Your task to perform on an android device: change the clock style Image 0: 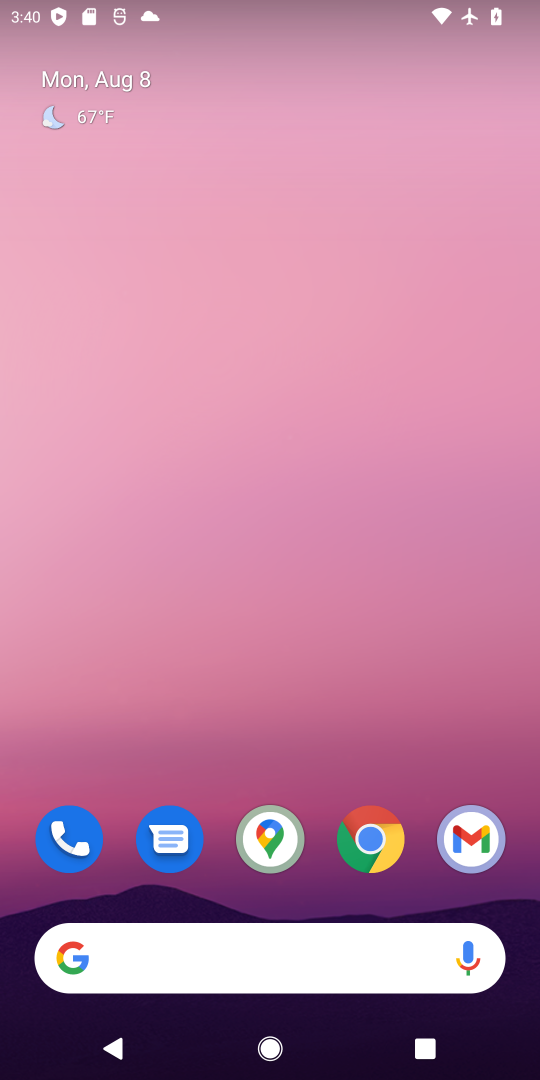
Step 0: press home button
Your task to perform on an android device: change the clock style Image 1: 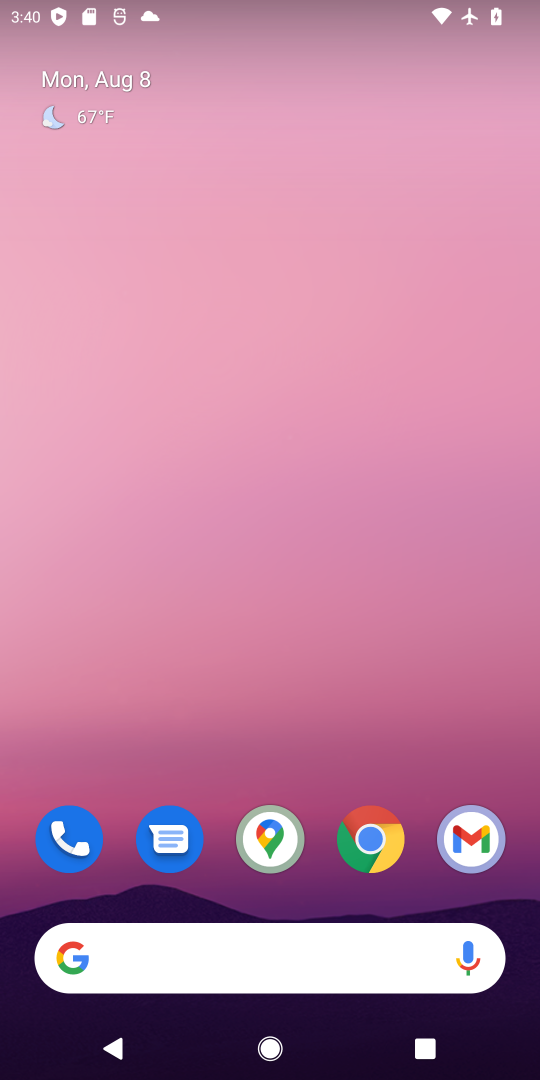
Step 1: drag from (434, 764) to (450, 209)
Your task to perform on an android device: change the clock style Image 2: 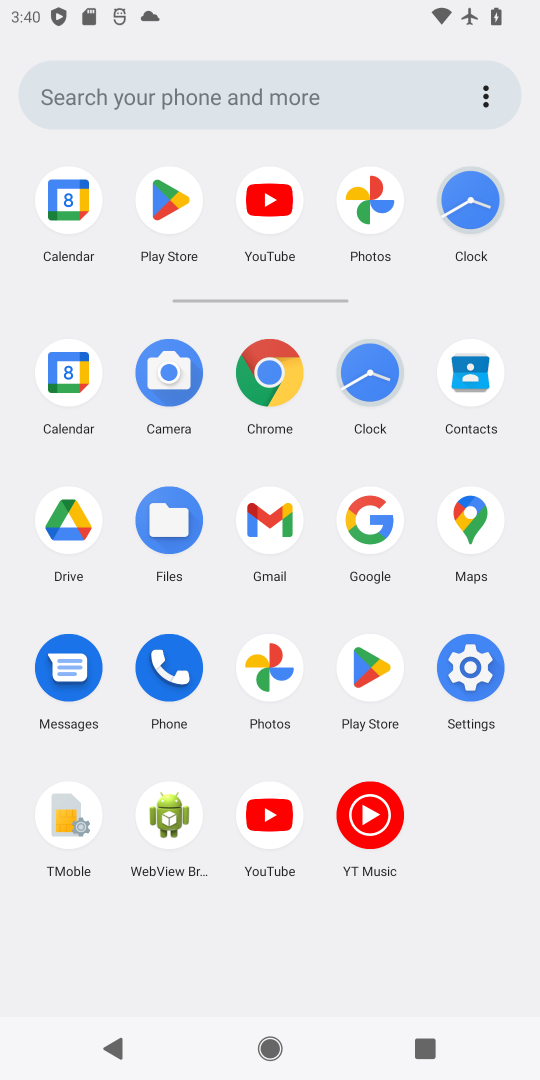
Step 2: click (358, 381)
Your task to perform on an android device: change the clock style Image 3: 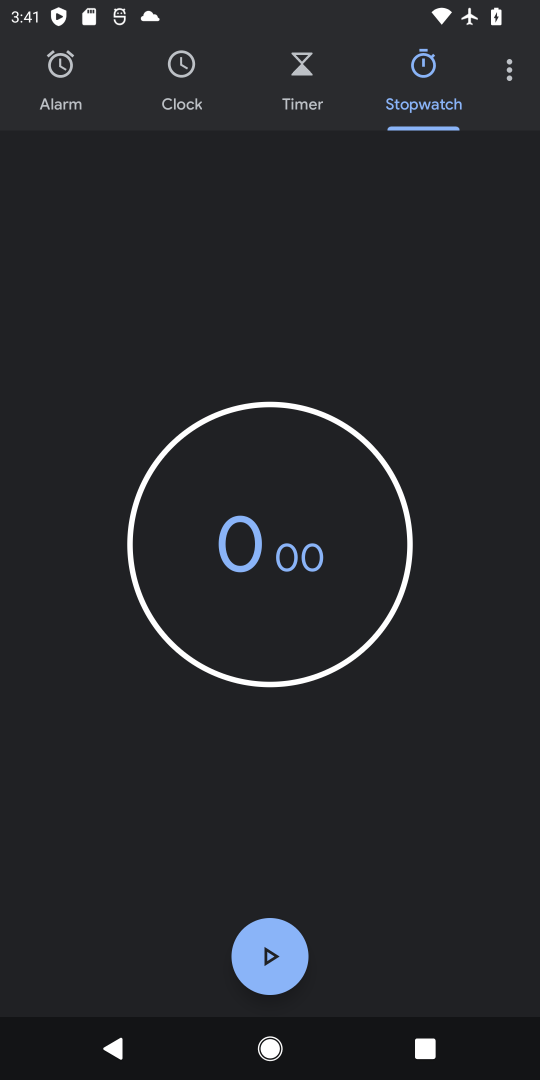
Step 3: click (510, 77)
Your task to perform on an android device: change the clock style Image 4: 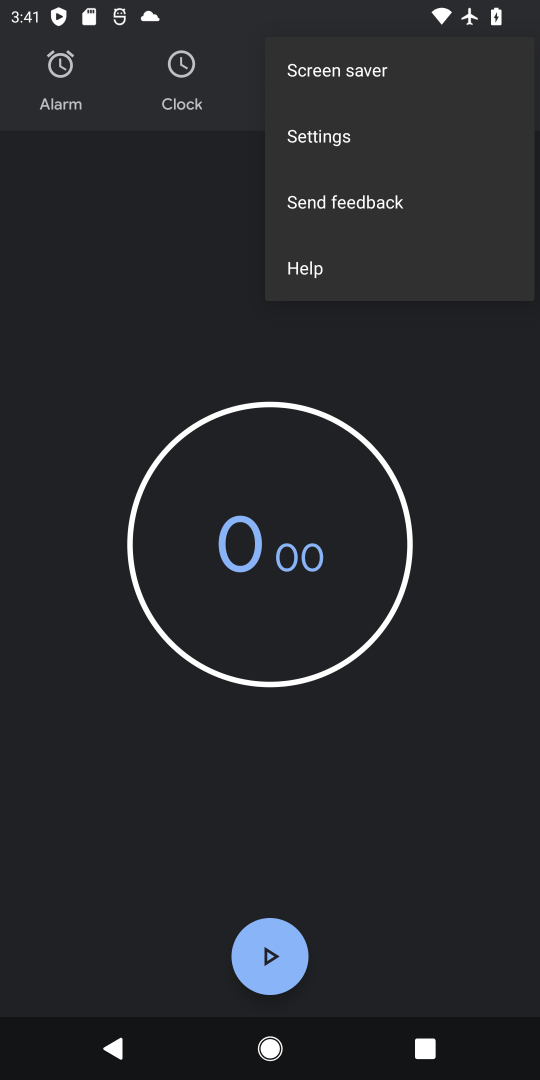
Step 4: click (345, 143)
Your task to perform on an android device: change the clock style Image 5: 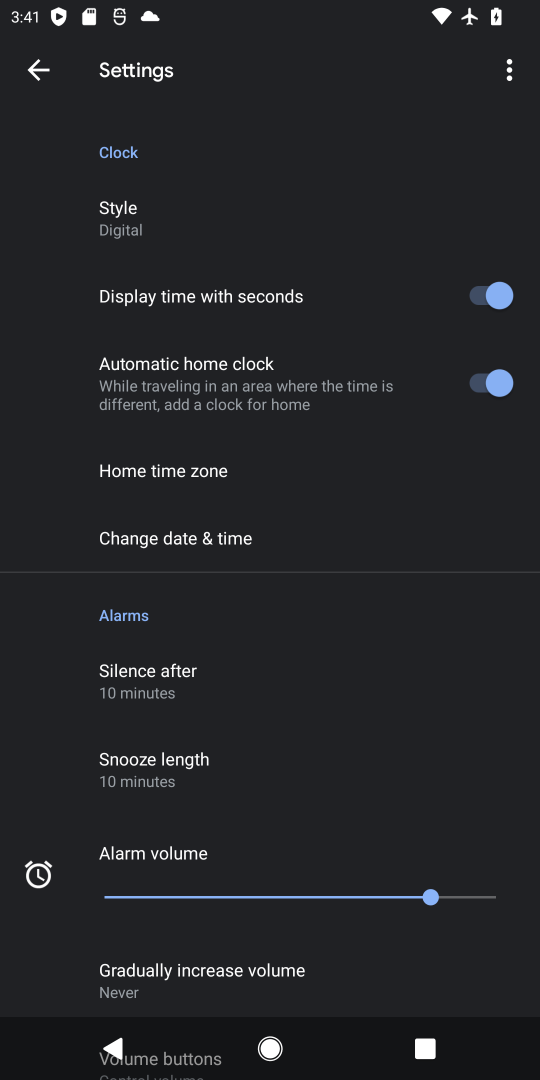
Step 5: drag from (394, 540) to (406, 348)
Your task to perform on an android device: change the clock style Image 6: 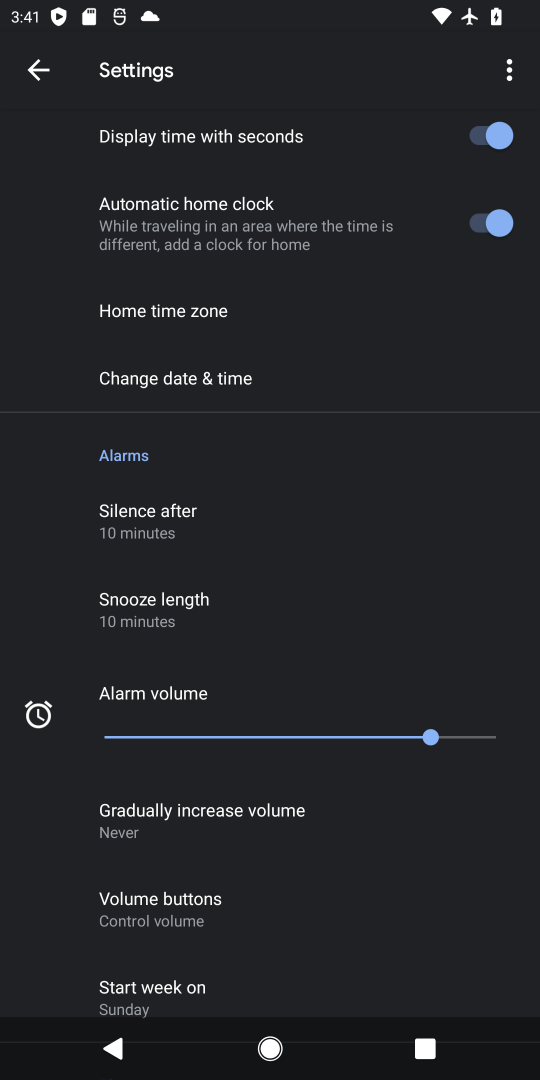
Step 6: drag from (409, 579) to (413, 355)
Your task to perform on an android device: change the clock style Image 7: 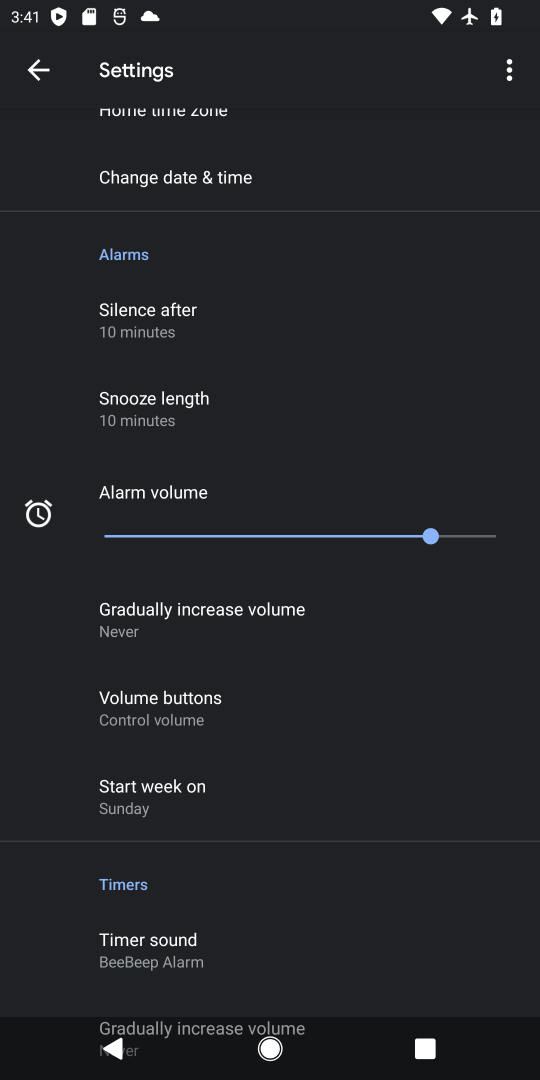
Step 7: drag from (432, 719) to (458, 454)
Your task to perform on an android device: change the clock style Image 8: 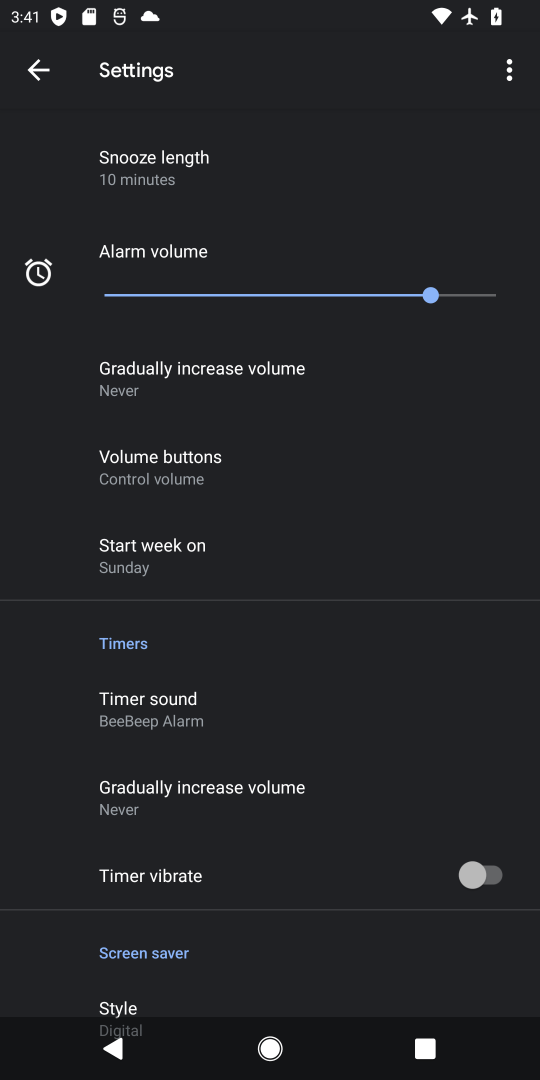
Step 8: drag from (439, 632) to (454, 457)
Your task to perform on an android device: change the clock style Image 9: 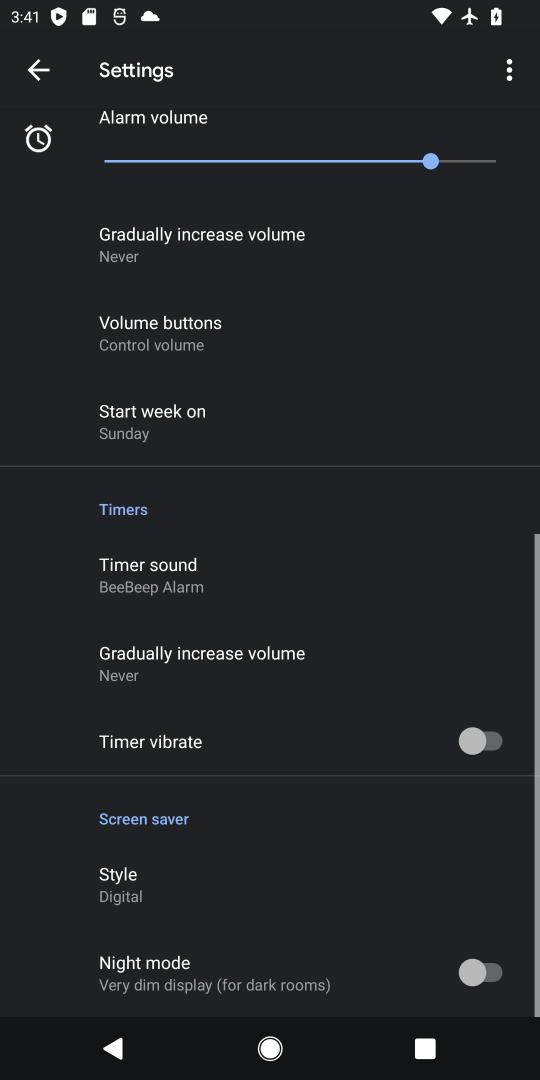
Step 9: drag from (441, 363) to (453, 572)
Your task to perform on an android device: change the clock style Image 10: 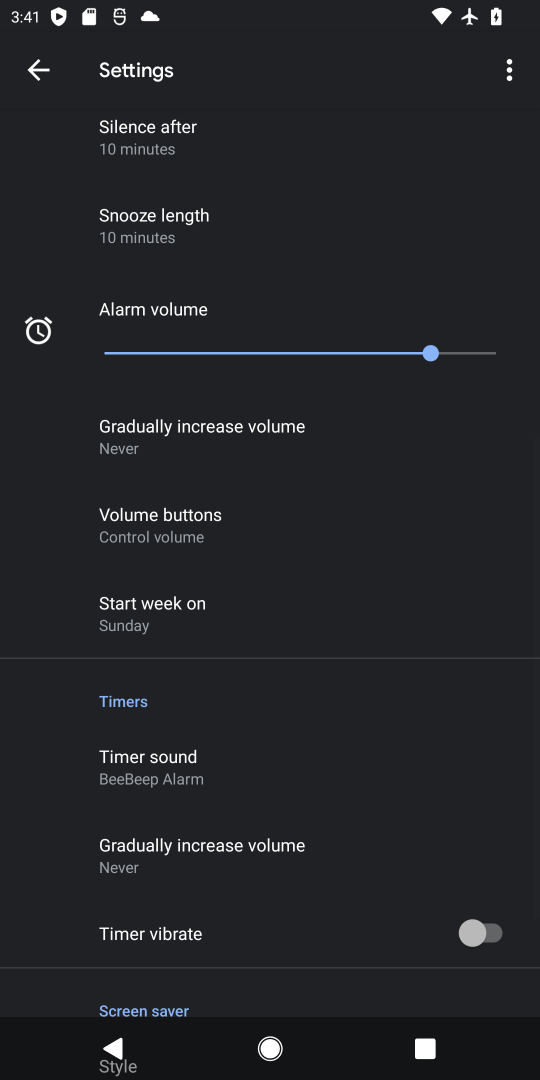
Step 10: drag from (475, 396) to (482, 552)
Your task to perform on an android device: change the clock style Image 11: 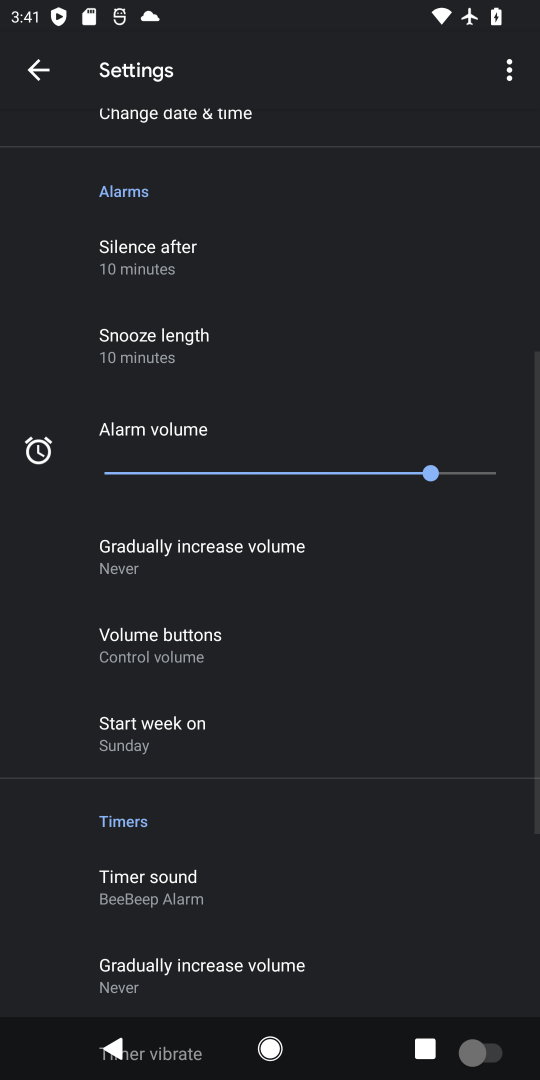
Step 11: drag from (483, 314) to (498, 525)
Your task to perform on an android device: change the clock style Image 12: 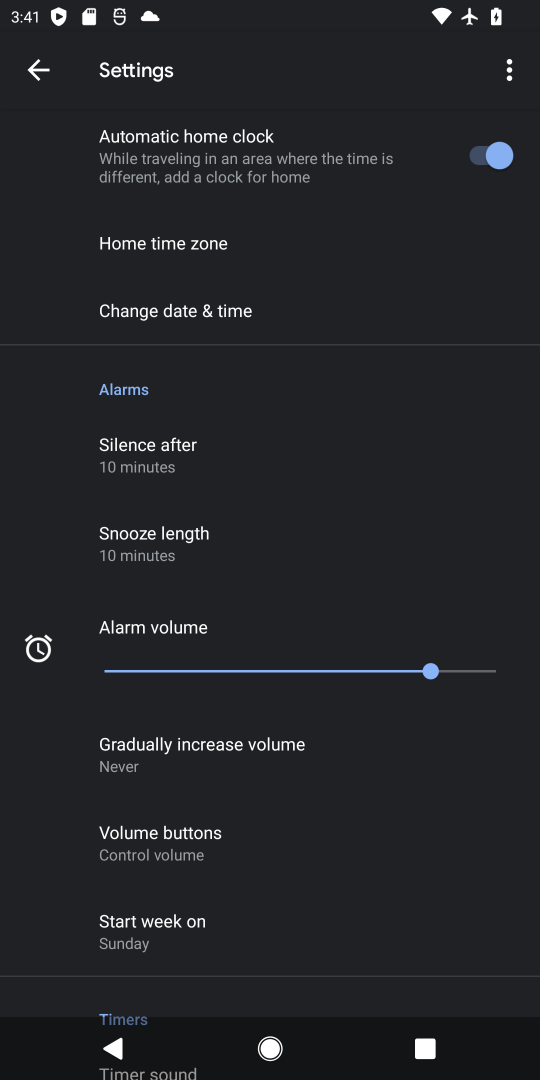
Step 12: drag from (475, 297) to (487, 505)
Your task to perform on an android device: change the clock style Image 13: 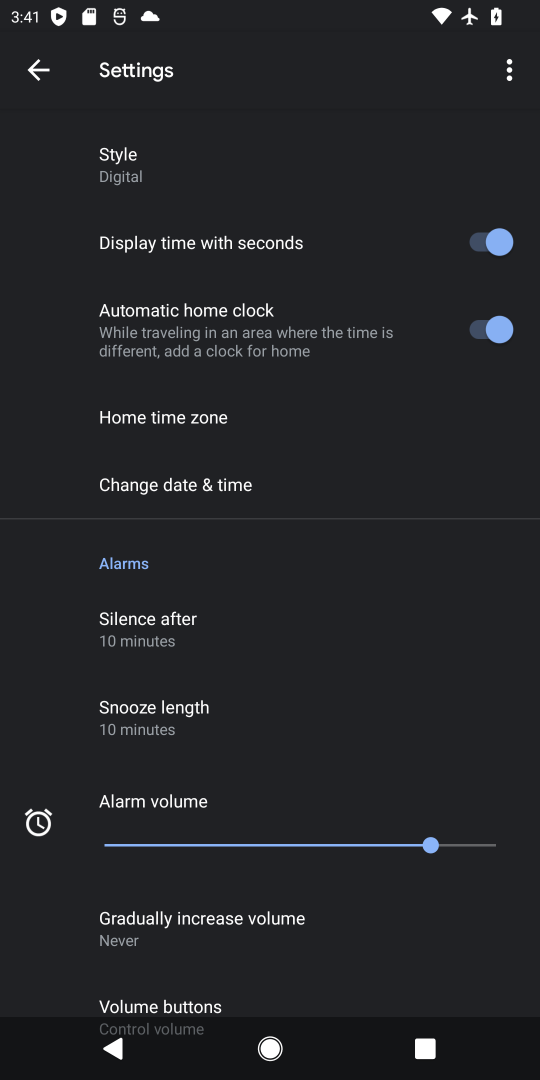
Step 13: drag from (415, 230) to (417, 484)
Your task to perform on an android device: change the clock style Image 14: 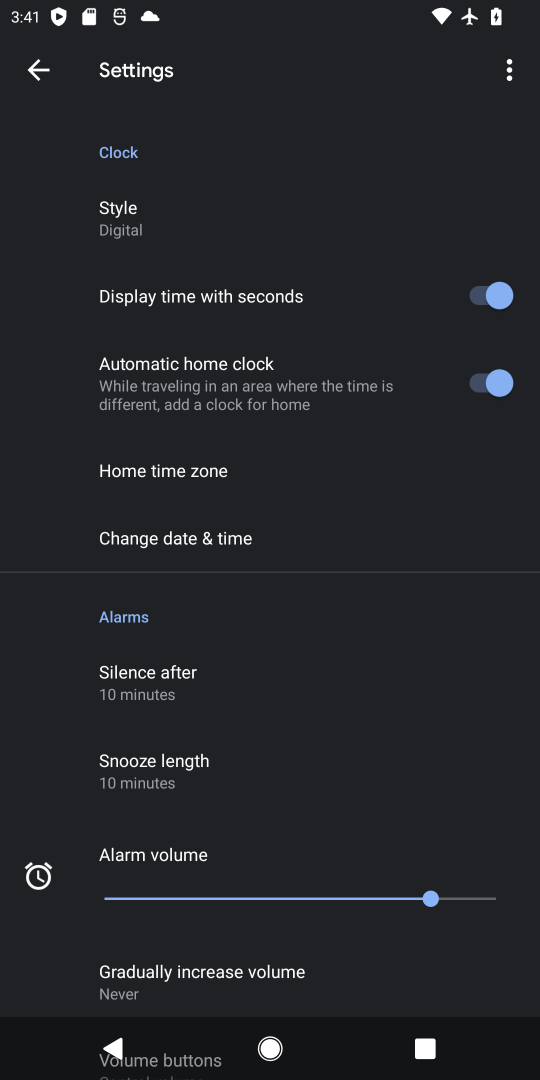
Step 14: click (160, 223)
Your task to perform on an android device: change the clock style Image 15: 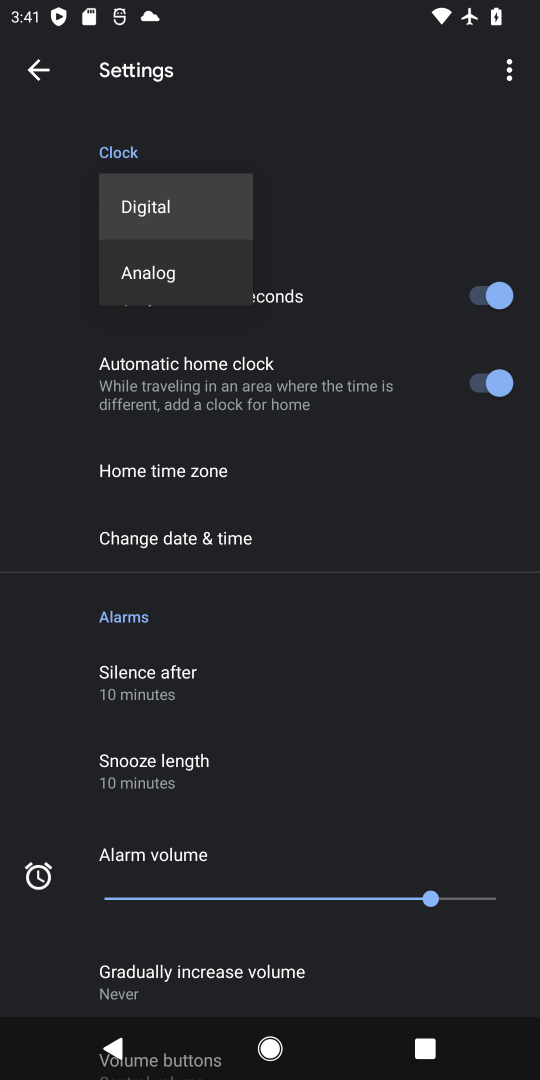
Step 15: click (169, 291)
Your task to perform on an android device: change the clock style Image 16: 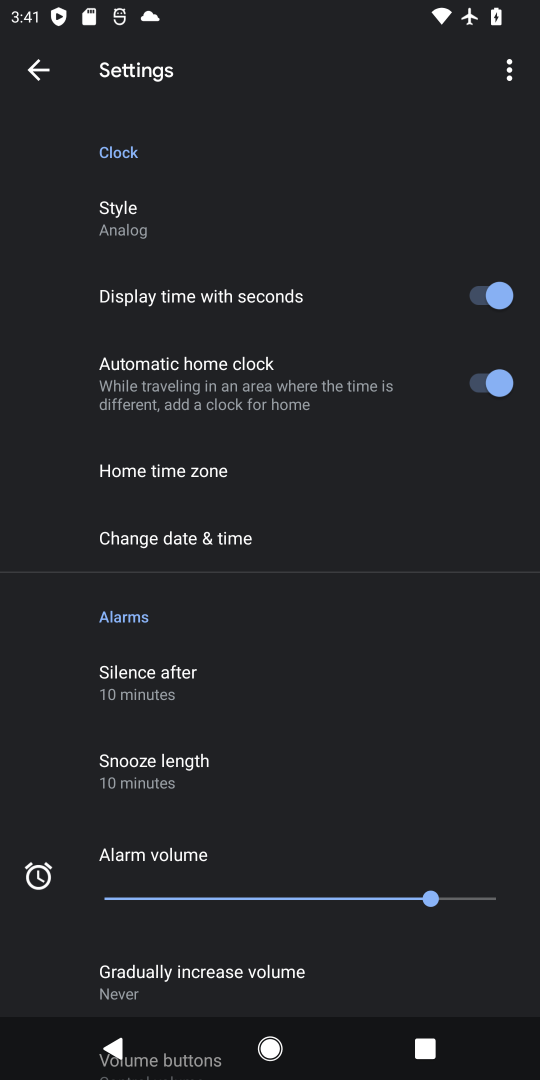
Step 16: task complete